Your task to perform on an android device: Open Yahoo.com Image 0: 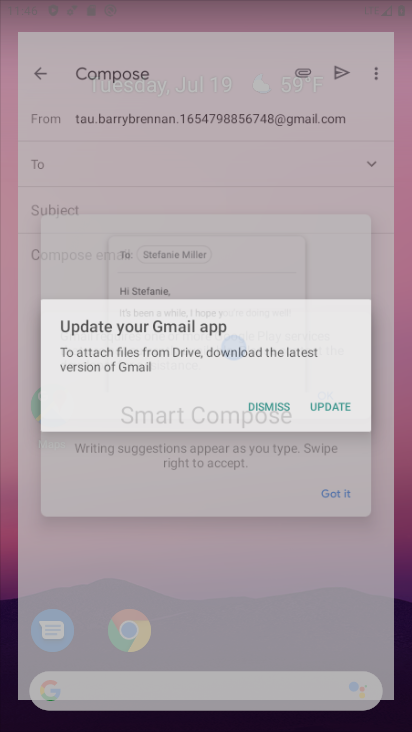
Step 0: drag from (207, 681) to (216, 249)
Your task to perform on an android device: Open Yahoo.com Image 1: 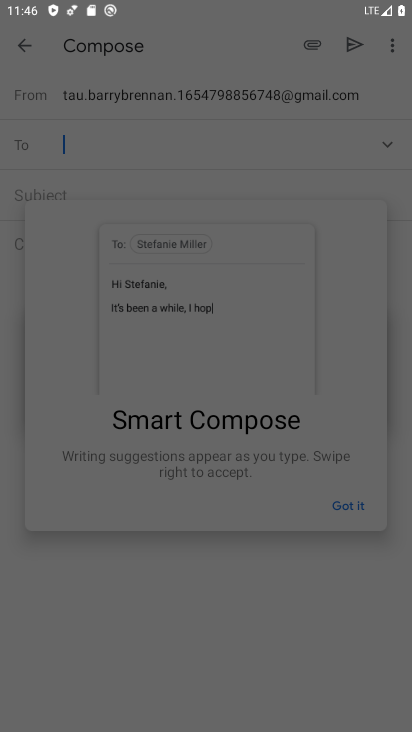
Step 1: press home button
Your task to perform on an android device: Open Yahoo.com Image 2: 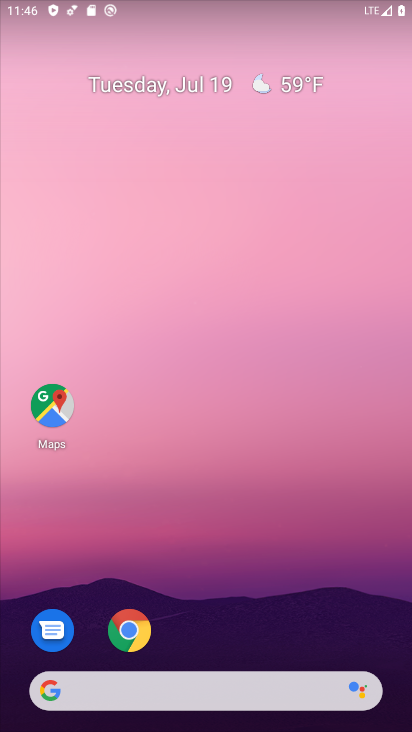
Step 2: drag from (219, 587) to (341, 211)
Your task to perform on an android device: Open Yahoo.com Image 3: 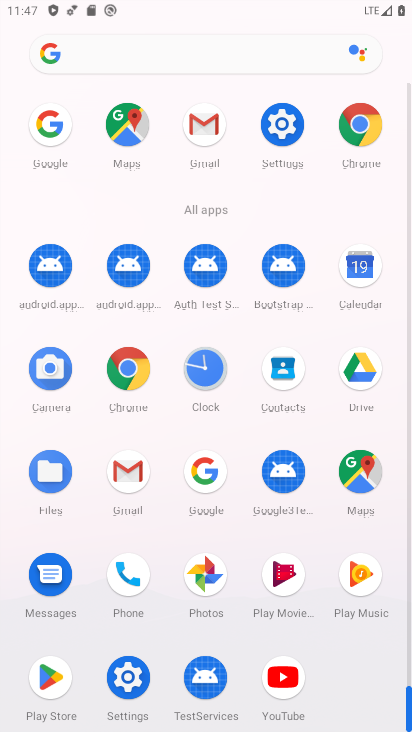
Step 3: click (356, 154)
Your task to perform on an android device: Open Yahoo.com Image 4: 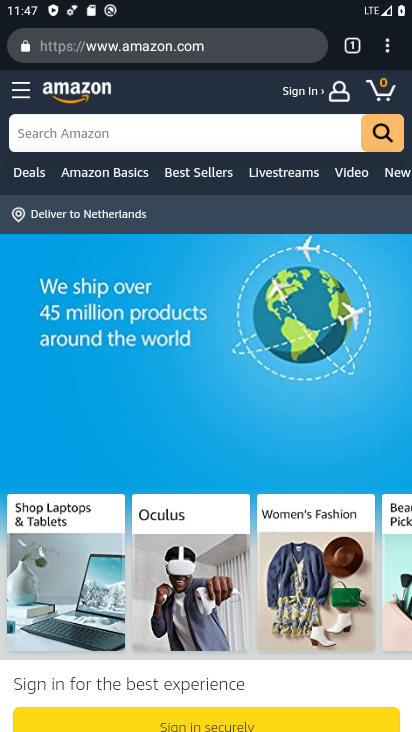
Step 4: click (189, 53)
Your task to perform on an android device: Open Yahoo.com Image 5: 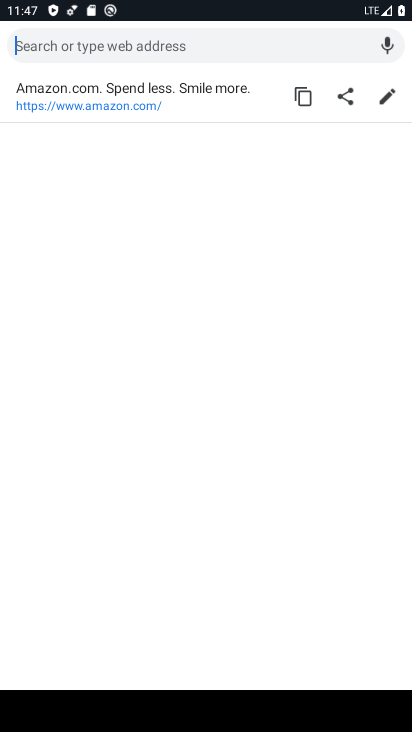
Step 5: type "yahoo"
Your task to perform on an android device: Open Yahoo.com Image 6: 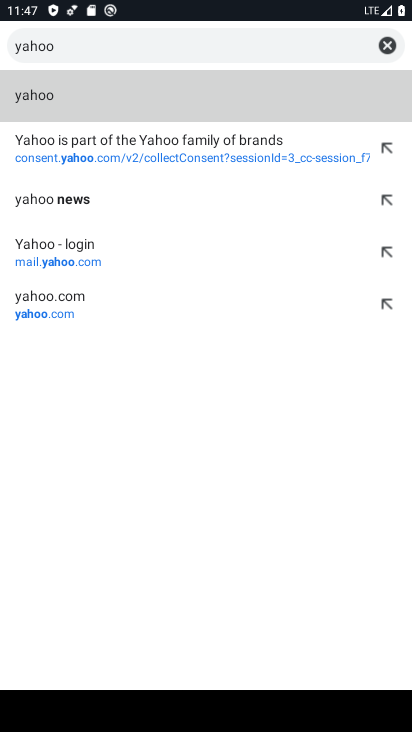
Step 6: click (94, 321)
Your task to perform on an android device: Open Yahoo.com Image 7: 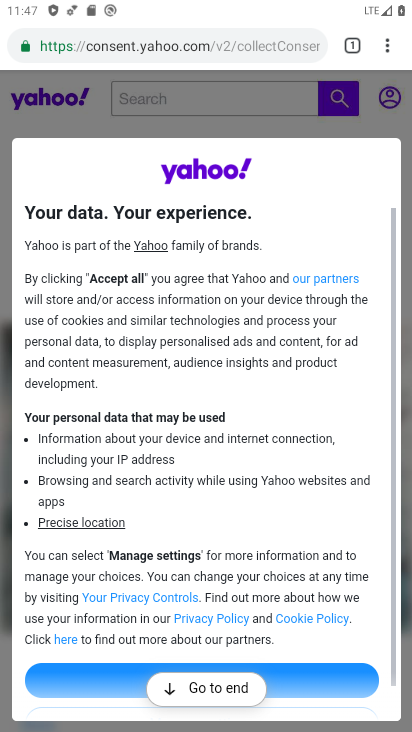
Step 7: task complete